Your task to perform on an android device: Open the calendar and show me this week's events? Image 0: 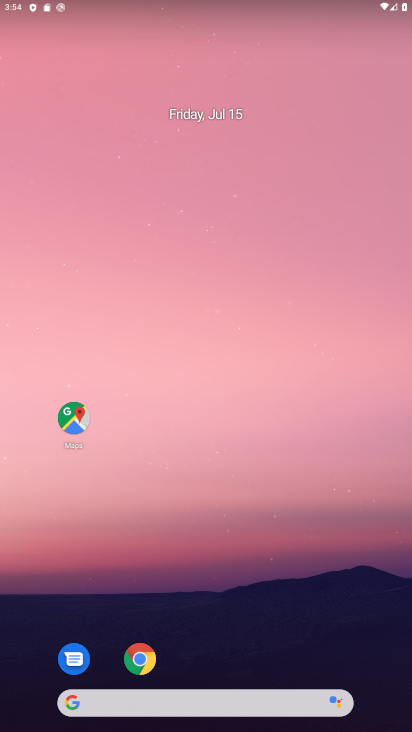
Step 0: press home button
Your task to perform on an android device: Open the calendar and show me this week's events? Image 1: 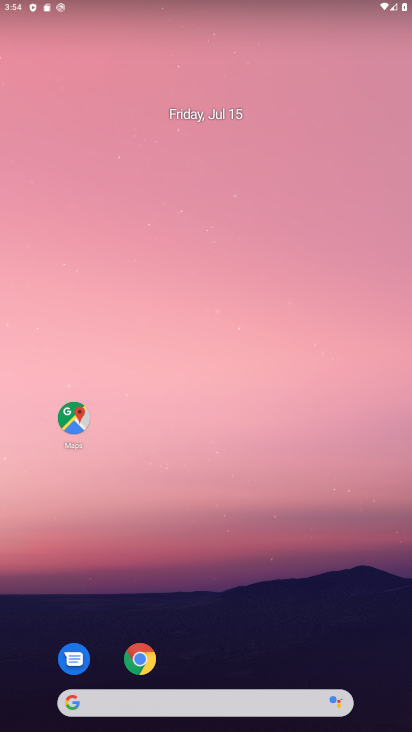
Step 1: drag from (315, 709) to (353, 91)
Your task to perform on an android device: Open the calendar and show me this week's events? Image 2: 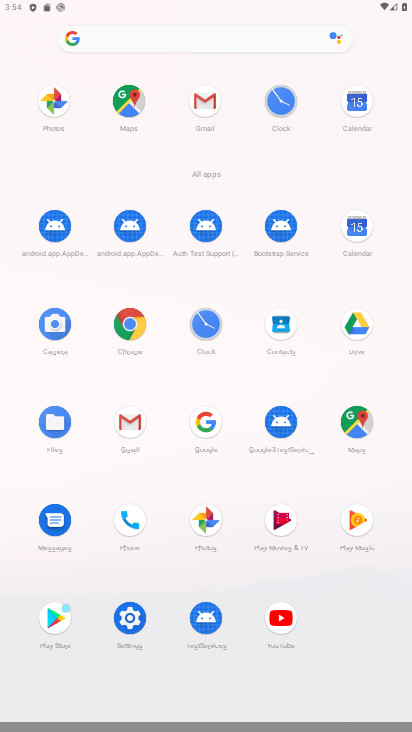
Step 2: click (363, 233)
Your task to perform on an android device: Open the calendar and show me this week's events? Image 3: 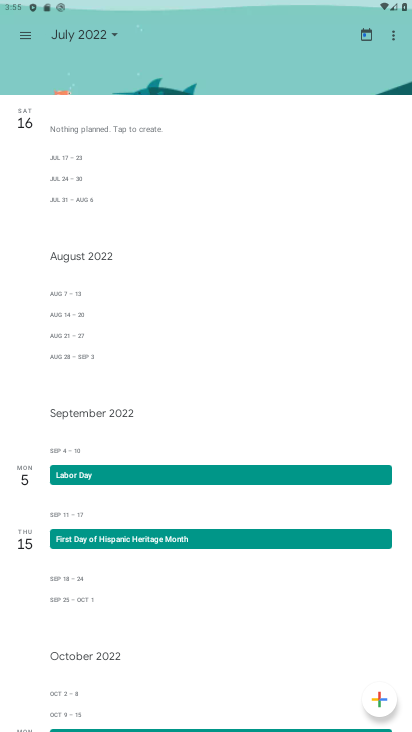
Step 3: click (109, 33)
Your task to perform on an android device: Open the calendar and show me this week's events? Image 4: 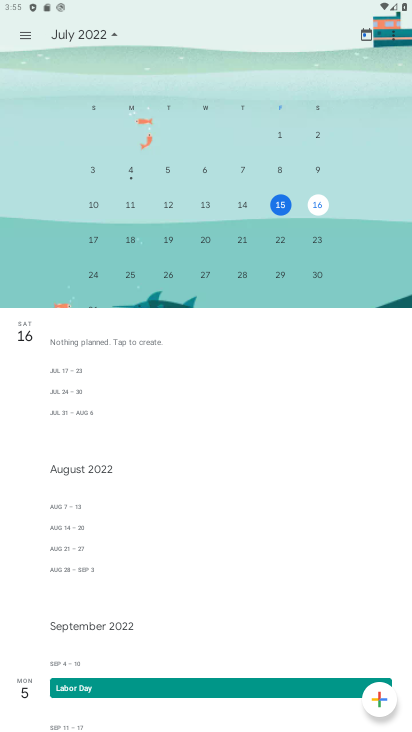
Step 4: click (33, 35)
Your task to perform on an android device: Open the calendar and show me this week's events? Image 5: 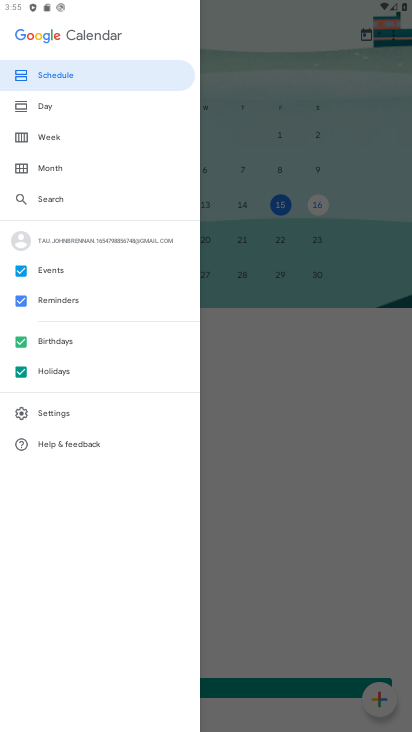
Step 5: click (61, 133)
Your task to perform on an android device: Open the calendar and show me this week's events? Image 6: 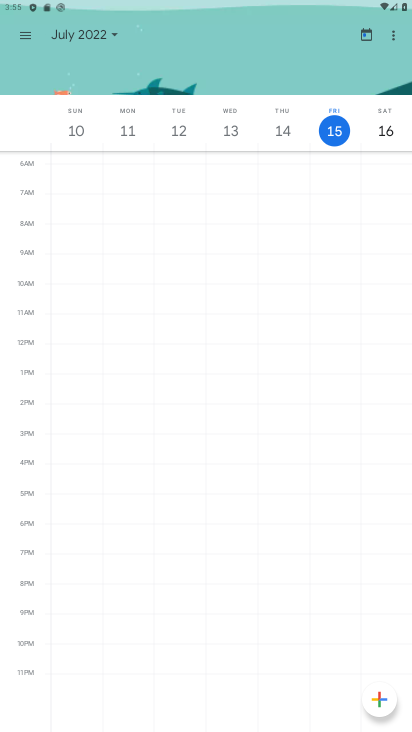
Step 6: task complete